Your task to perform on an android device: uninstall "Speedtest by Ookla" Image 0: 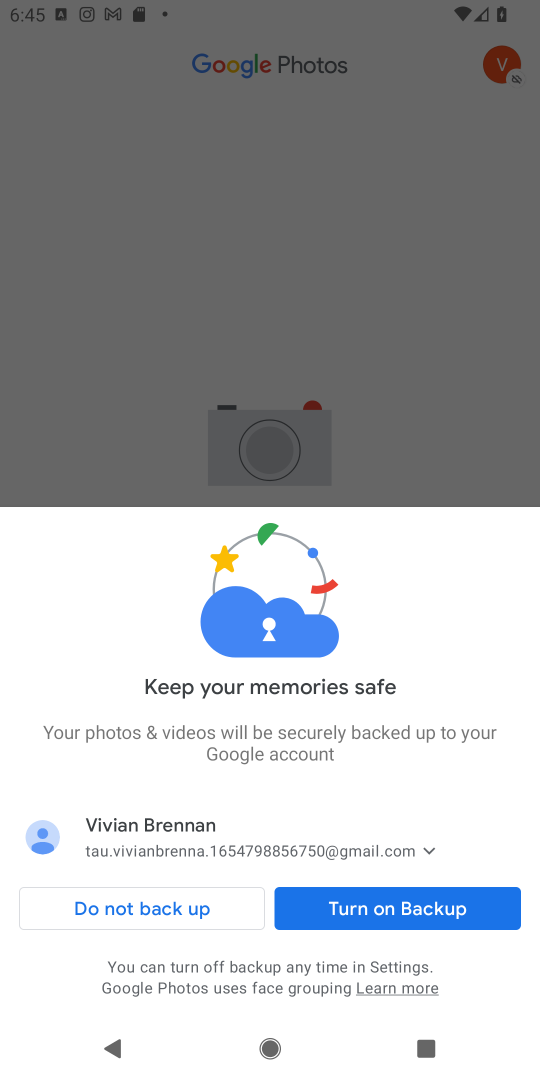
Step 0: press home button
Your task to perform on an android device: uninstall "Speedtest by Ookla" Image 1: 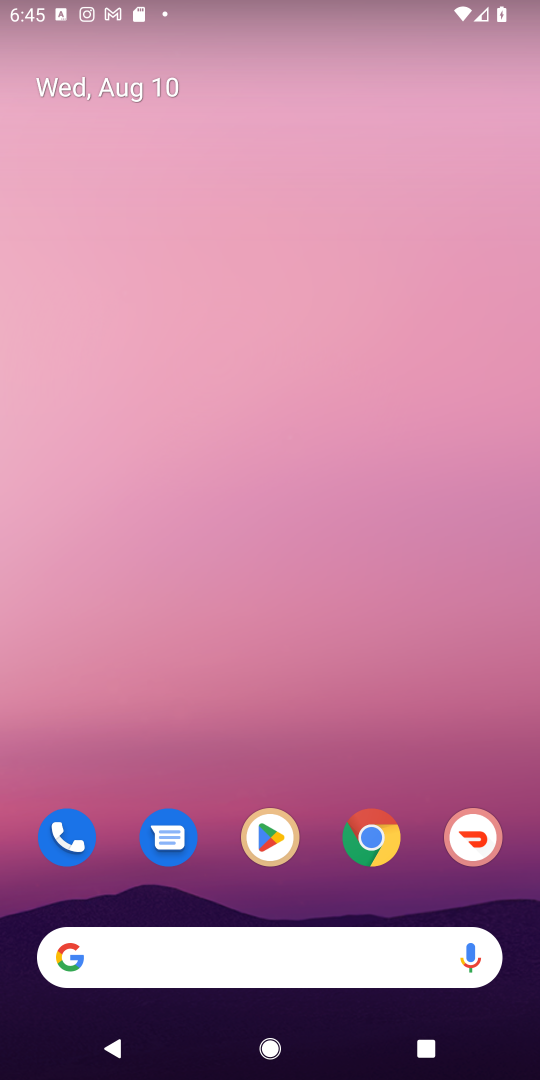
Step 1: click (263, 843)
Your task to perform on an android device: uninstall "Speedtest by Ookla" Image 2: 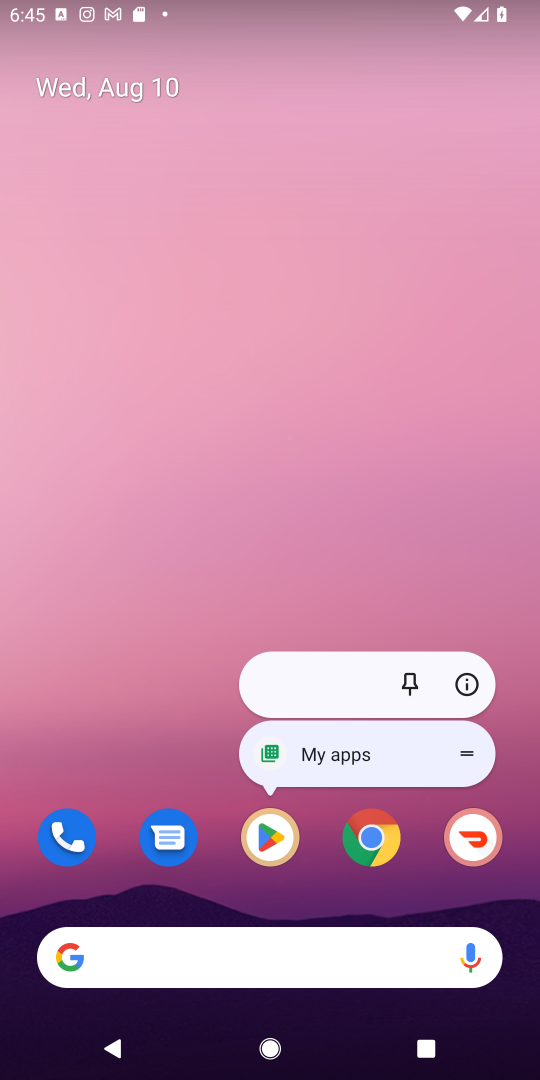
Step 2: click (263, 846)
Your task to perform on an android device: uninstall "Speedtest by Ookla" Image 3: 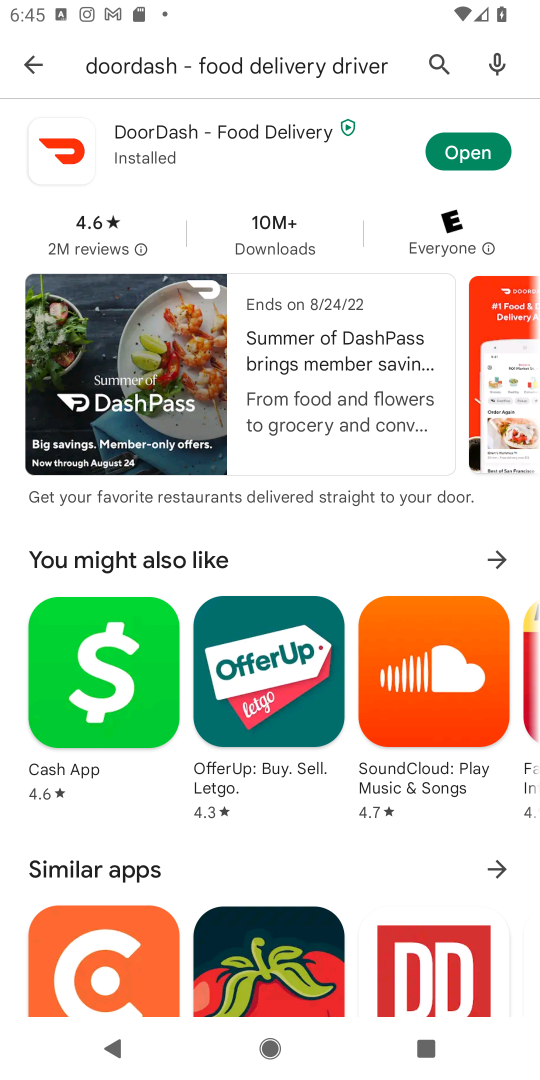
Step 3: click (437, 69)
Your task to perform on an android device: uninstall "Speedtest by Ookla" Image 4: 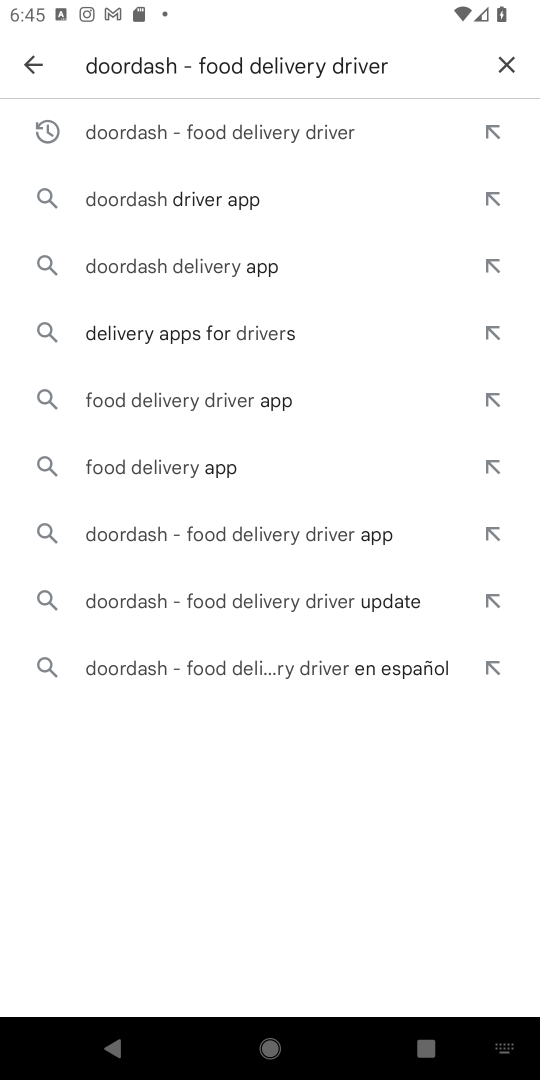
Step 4: click (507, 66)
Your task to perform on an android device: uninstall "Speedtest by Ookla" Image 5: 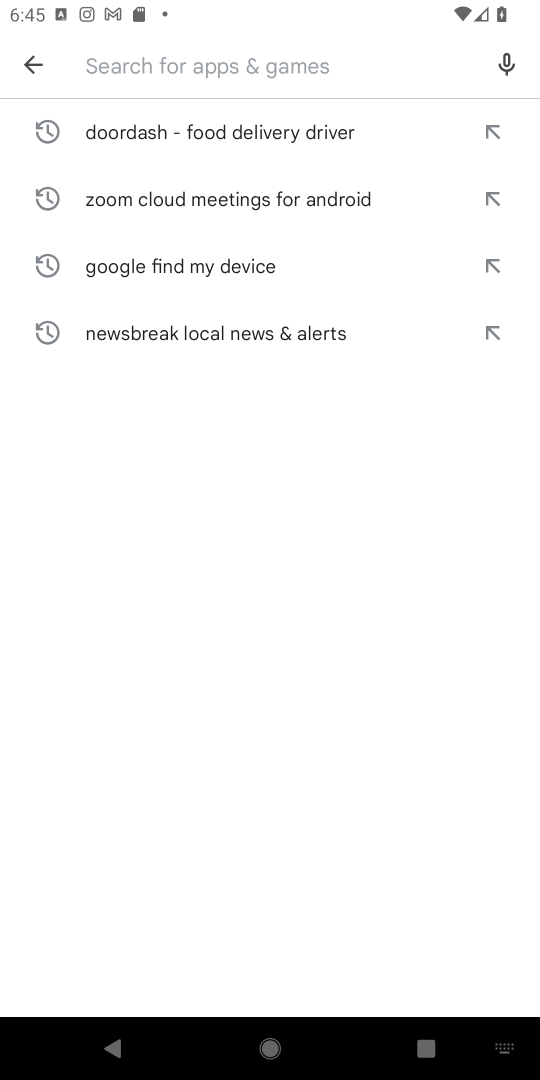
Step 5: type "Speedtest by Ookla"
Your task to perform on an android device: uninstall "Speedtest by Ookla" Image 6: 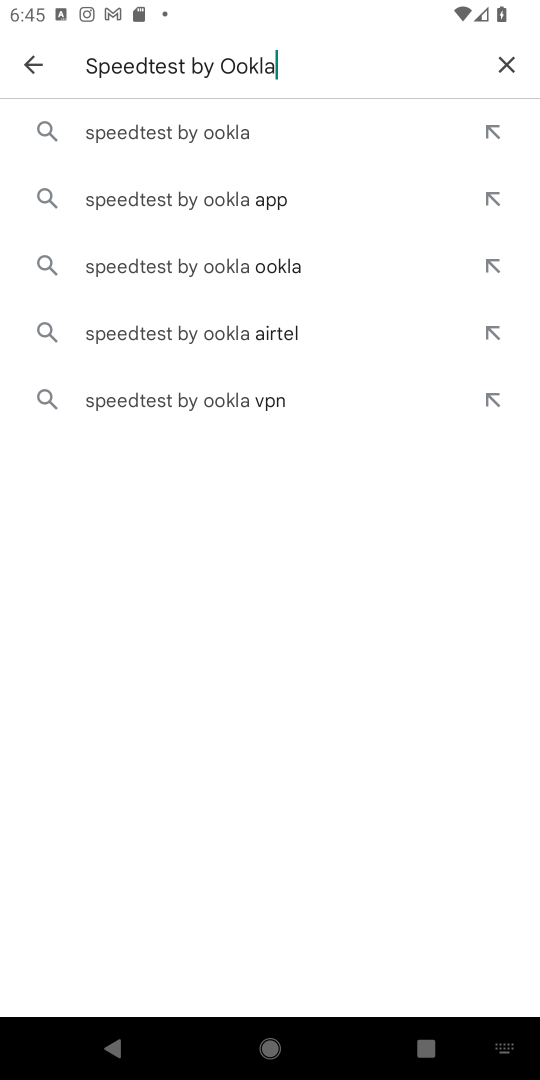
Step 6: click (225, 133)
Your task to perform on an android device: uninstall "Speedtest by Ookla" Image 7: 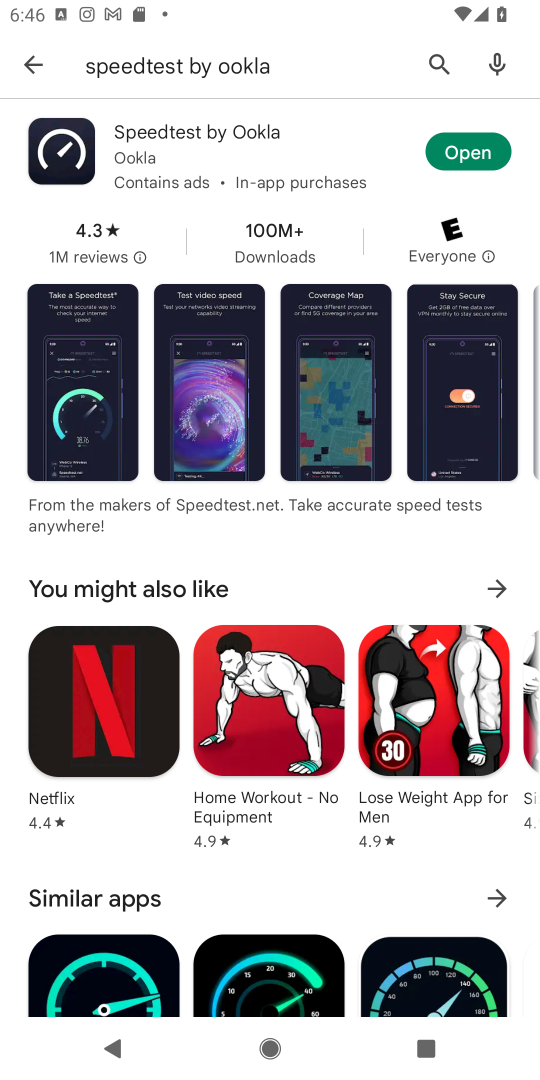
Step 7: click (169, 139)
Your task to perform on an android device: uninstall "Speedtest by Ookla" Image 8: 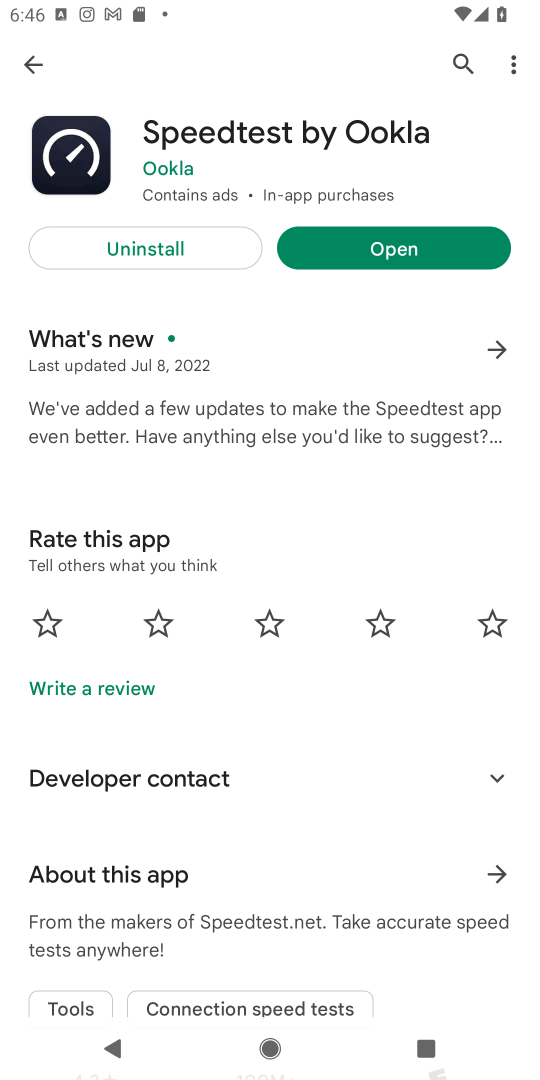
Step 8: click (166, 242)
Your task to perform on an android device: uninstall "Speedtest by Ookla" Image 9: 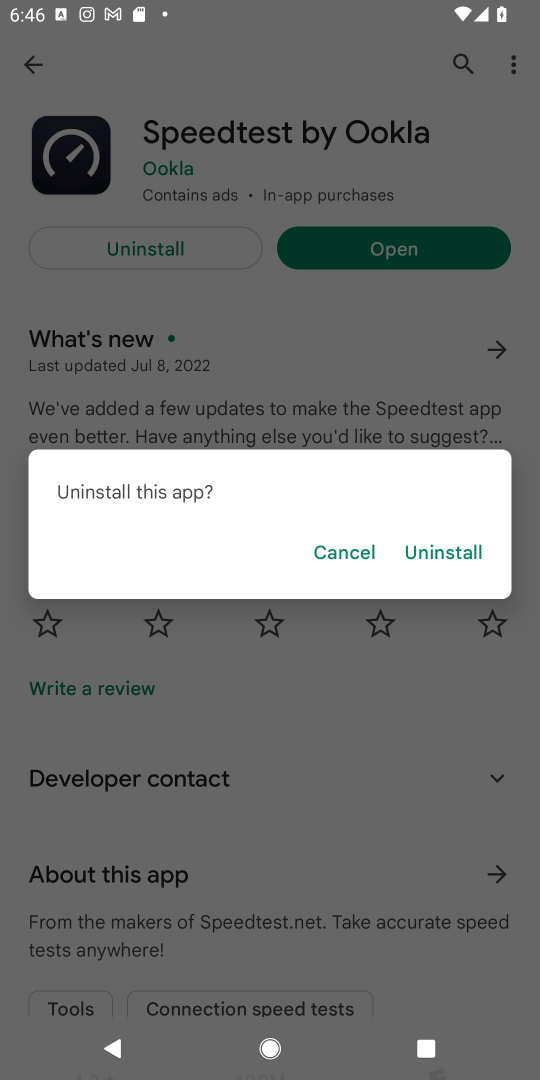
Step 9: click (475, 560)
Your task to perform on an android device: uninstall "Speedtest by Ookla" Image 10: 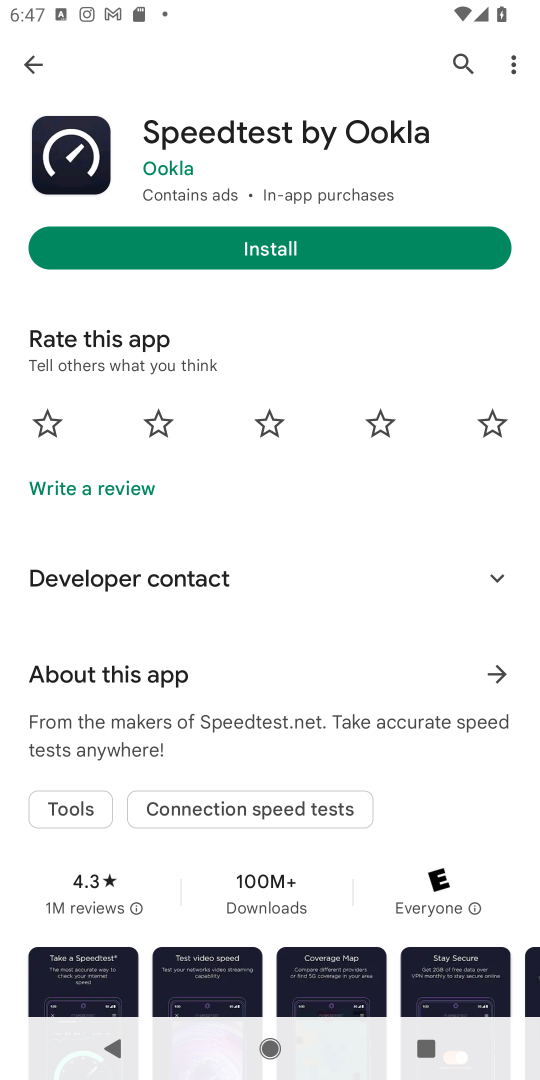
Step 10: task complete